Your task to perform on an android device: Go to Yahoo.com Image 0: 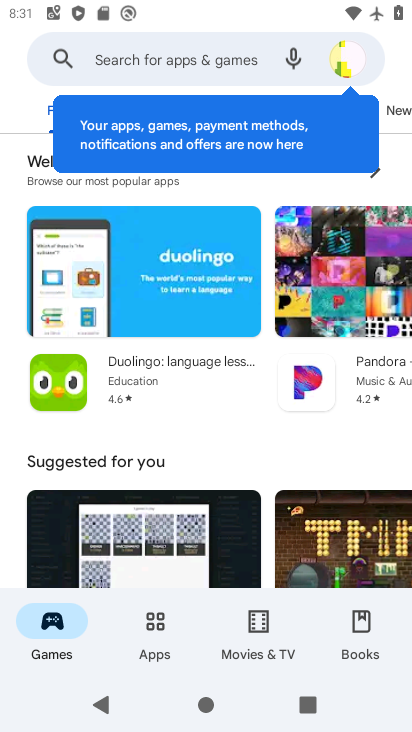
Step 0: press home button
Your task to perform on an android device: Go to Yahoo.com Image 1: 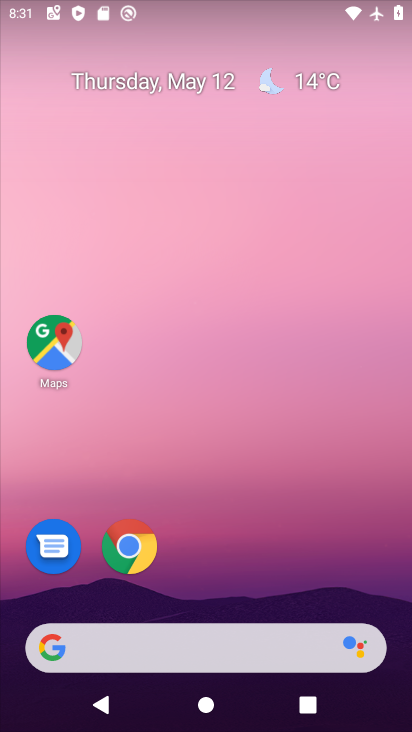
Step 1: click (134, 551)
Your task to perform on an android device: Go to Yahoo.com Image 2: 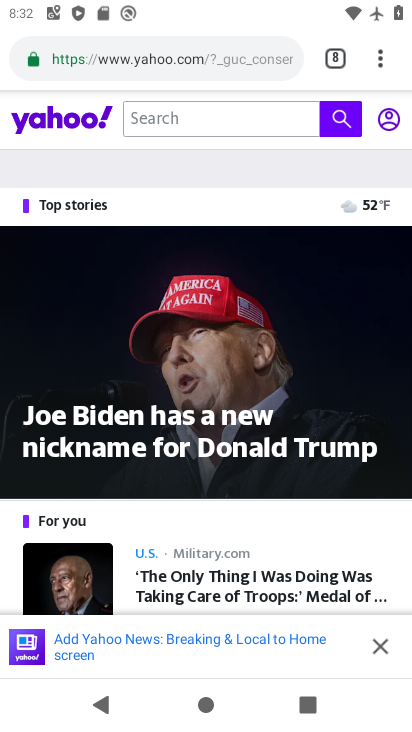
Step 2: task complete